Your task to perform on an android device: Clear the shopping cart on amazon. Search for logitech g pro on amazon, select the first entry, add it to the cart, then select checkout. Image 0: 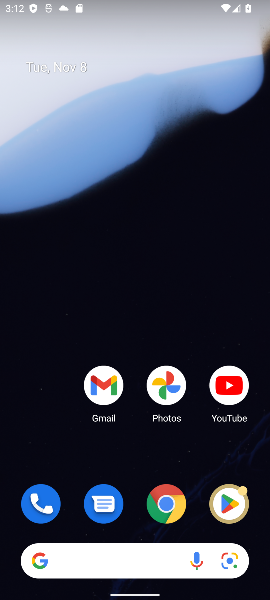
Step 0: drag from (94, 477) to (129, 79)
Your task to perform on an android device: Clear the shopping cart on amazon. Search for logitech g pro on amazon, select the first entry, add it to the cart, then select checkout. Image 1: 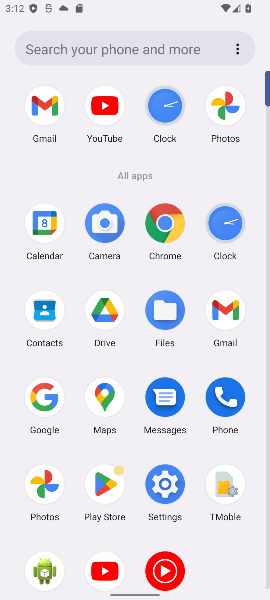
Step 1: click (164, 218)
Your task to perform on an android device: Clear the shopping cart on amazon. Search for logitech g pro on amazon, select the first entry, add it to the cart, then select checkout. Image 2: 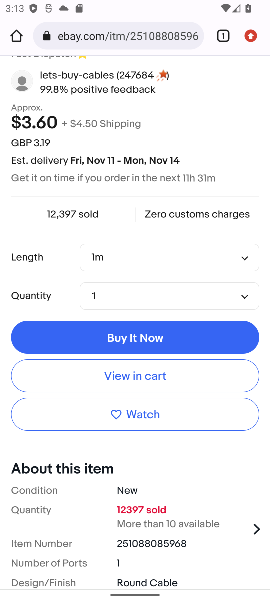
Step 2: click (118, 38)
Your task to perform on an android device: Clear the shopping cart on amazon. Search for logitech g pro on amazon, select the first entry, add it to the cart, then select checkout. Image 3: 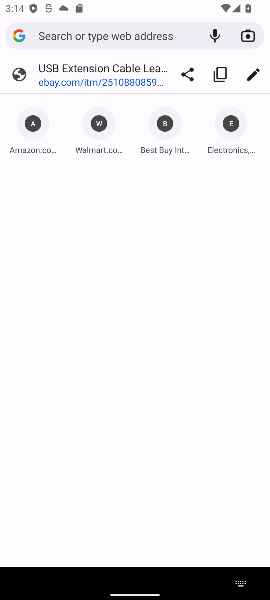
Step 3: type "amazon"
Your task to perform on an android device: Clear the shopping cart on amazon. Search for logitech g pro on amazon, select the first entry, add it to the cart, then select checkout. Image 4: 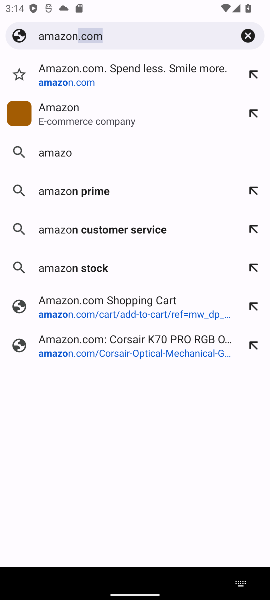
Step 4: press enter
Your task to perform on an android device: Clear the shopping cart on amazon. Search for logitech g pro on amazon, select the first entry, add it to the cart, then select checkout. Image 5: 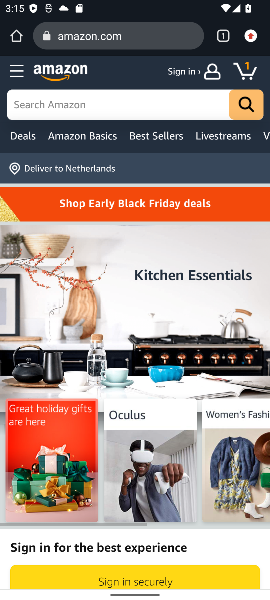
Step 5: click (133, 103)
Your task to perform on an android device: Clear the shopping cart on amazon. Search for logitech g pro on amazon, select the first entry, add it to the cart, then select checkout. Image 6: 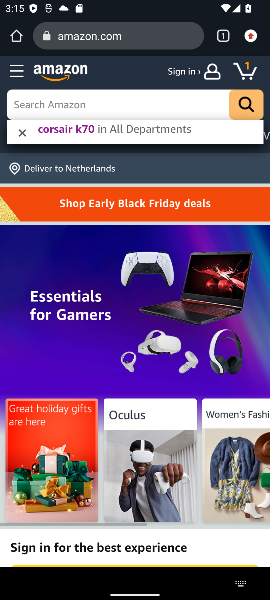
Step 6: type " logitech g pro"
Your task to perform on an android device: Clear the shopping cart on amazon. Search for logitech g pro on amazon, select the first entry, add it to the cart, then select checkout. Image 7: 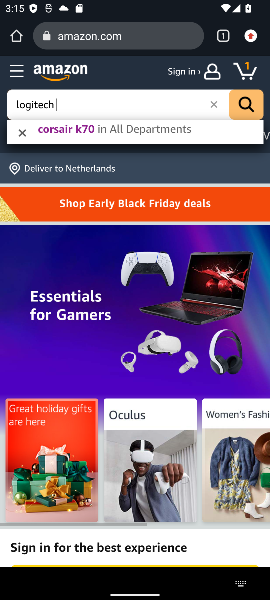
Step 7: press enter
Your task to perform on an android device: Clear the shopping cart on amazon. Search for logitech g pro on amazon, select the first entry, add it to the cart, then select checkout. Image 8: 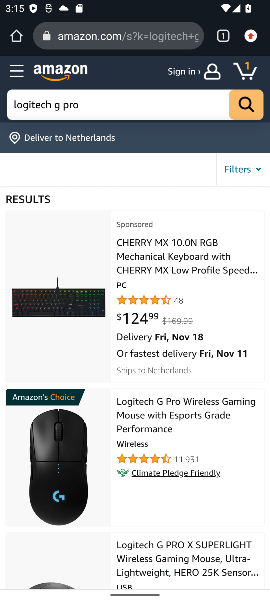
Step 8: click (205, 259)
Your task to perform on an android device: Clear the shopping cart on amazon. Search for logitech g pro on amazon, select the first entry, add it to the cart, then select checkout. Image 9: 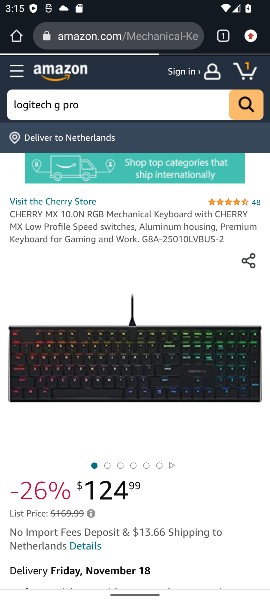
Step 9: drag from (169, 478) to (140, 236)
Your task to perform on an android device: Clear the shopping cart on amazon. Search for logitech g pro on amazon, select the first entry, add it to the cart, then select checkout. Image 10: 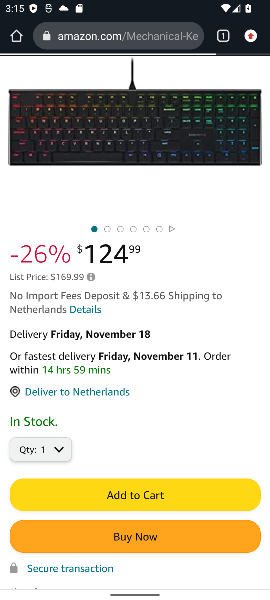
Step 10: drag from (166, 407) to (148, 346)
Your task to perform on an android device: Clear the shopping cart on amazon. Search for logitech g pro on amazon, select the first entry, add it to the cart, then select checkout. Image 11: 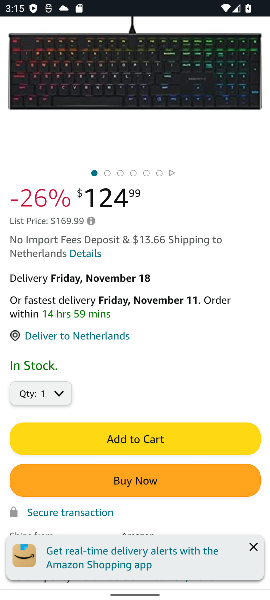
Step 11: click (140, 438)
Your task to perform on an android device: Clear the shopping cart on amazon. Search for logitech g pro on amazon, select the first entry, add it to the cart, then select checkout. Image 12: 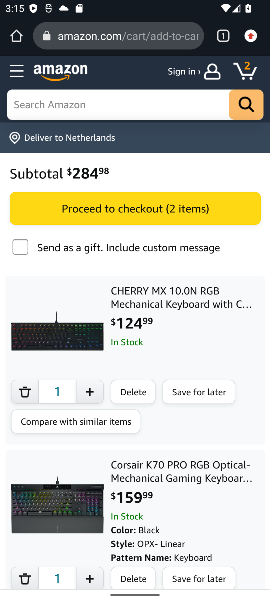
Step 12: click (90, 214)
Your task to perform on an android device: Clear the shopping cart on amazon. Search for logitech g pro on amazon, select the first entry, add it to the cart, then select checkout. Image 13: 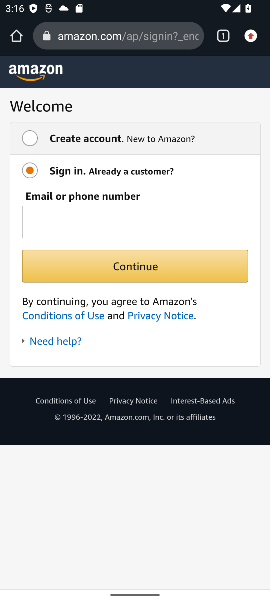
Step 13: press back button
Your task to perform on an android device: Clear the shopping cart on amazon. Search for logitech g pro on amazon, select the first entry, add it to the cart, then select checkout. Image 14: 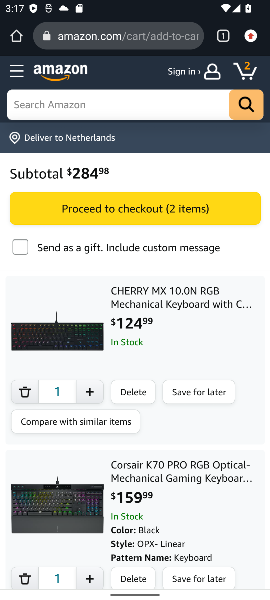
Step 14: click (256, 75)
Your task to perform on an android device: Clear the shopping cart on amazon. Search for logitech g pro on amazon, select the first entry, add it to the cart, then select checkout. Image 15: 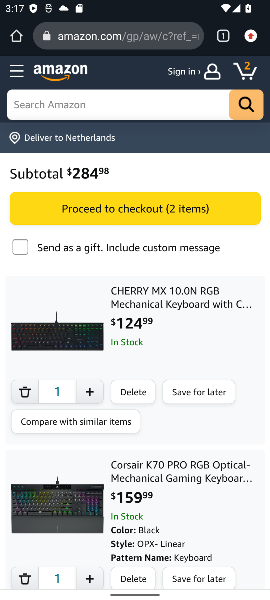
Step 15: click (244, 62)
Your task to perform on an android device: Clear the shopping cart on amazon. Search for logitech g pro on amazon, select the first entry, add it to the cart, then select checkout. Image 16: 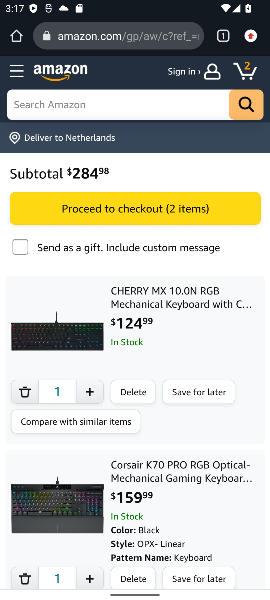
Step 16: click (21, 394)
Your task to perform on an android device: Clear the shopping cart on amazon. Search for logitech g pro on amazon, select the first entry, add it to the cart, then select checkout. Image 17: 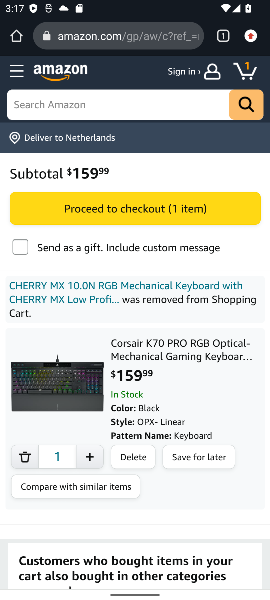
Step 17: click (23, 451)
Your task to perform on an android device: Clear the shopping cart on amazon. Search for logitech g pro on amazon, select the first entry, add it to the cart, then select checkout. Image 18: 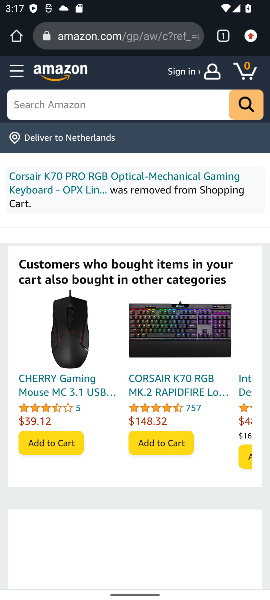
Step 18: click (52, 95)
Your task to perform on an android device: Clear the shopping cart on amazon. Search for logitech g pro on amazon, select the first entry, add it to the cart, then select checkout. Image 19: 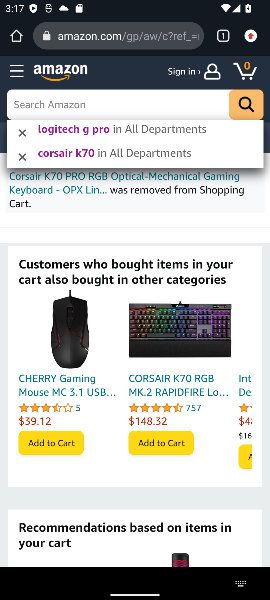
Step 19: type "logitech g pro "
Your task to perform on an android device: Clear the shopping cart on amazon. Search for logitech g pro on amazon, select the first entry, add it to the cart, then select checkout. Image 20: 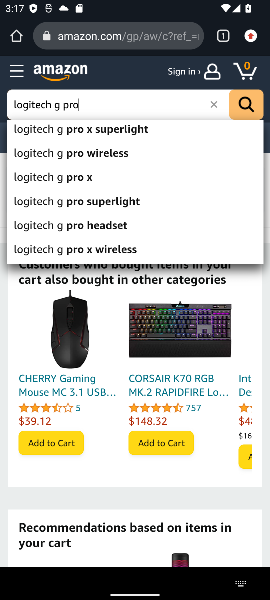
Step 20: press enter
Your task to perform on an android device: Clear the shopping cart on amazon. Search for logitech g pro on amazon, select the first entry, add it to the cart, then select checkout. Image 21: 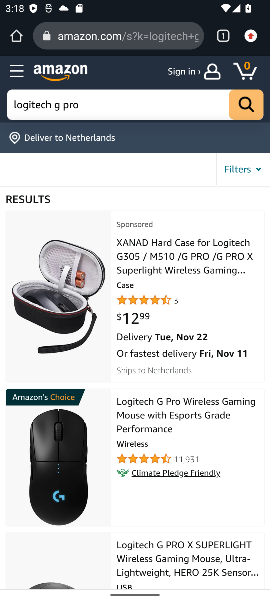
Step 21: click (173, 260)
Your task to perform on an android device: Clear the shopping cart on amazon. Search for logitech g pro on amazon, select the first entry, add it to the cart, then select checkout. Image 22: 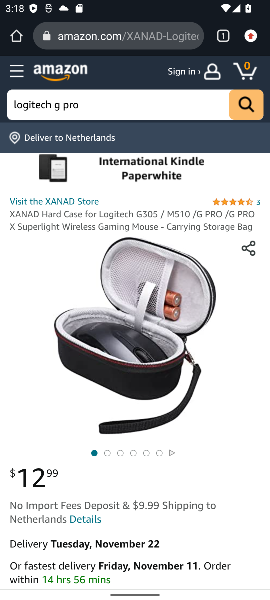
Step 22: drag from (126, 470) to (136, 263)
Your task to perform on an android device: Clear the shopping cart on amazon. Search for logitech g pro on amazon, select the first entry, add it to the cart, then select checkout. Image 23: 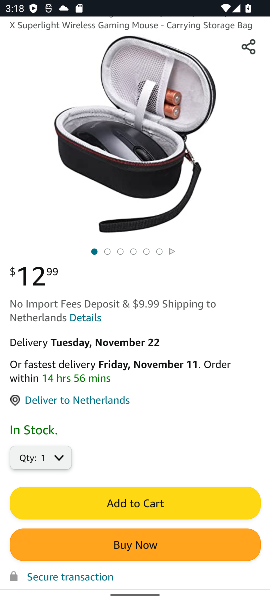
Step 23: click (120, 505)
Your task to perform on an android device: Clear the shopping cart on amazon. Search for logitech g pro on amazon, select the first entry, add it to the cart, then select checkout. Image 24: 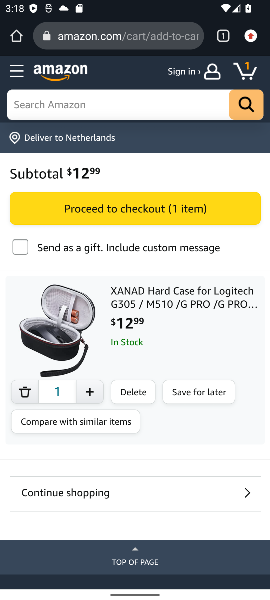
Step 24: click (118, 211)
Your task to perform on an android device: Clear the shopping cart on amazon. Search for logitech g pro on amazon, select the first entry, add it to the cart, then select checkout. Image 25: 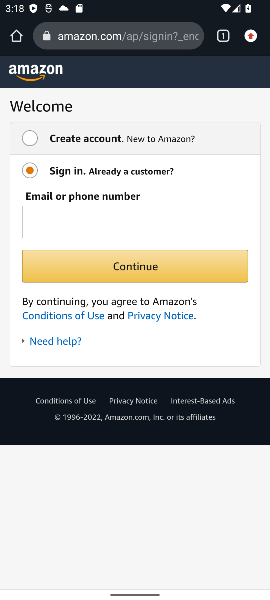
Step 25: task complete